Your task to perform on an android device: open app "WhatsApp Messenger" (install if not already installed) Image 0: 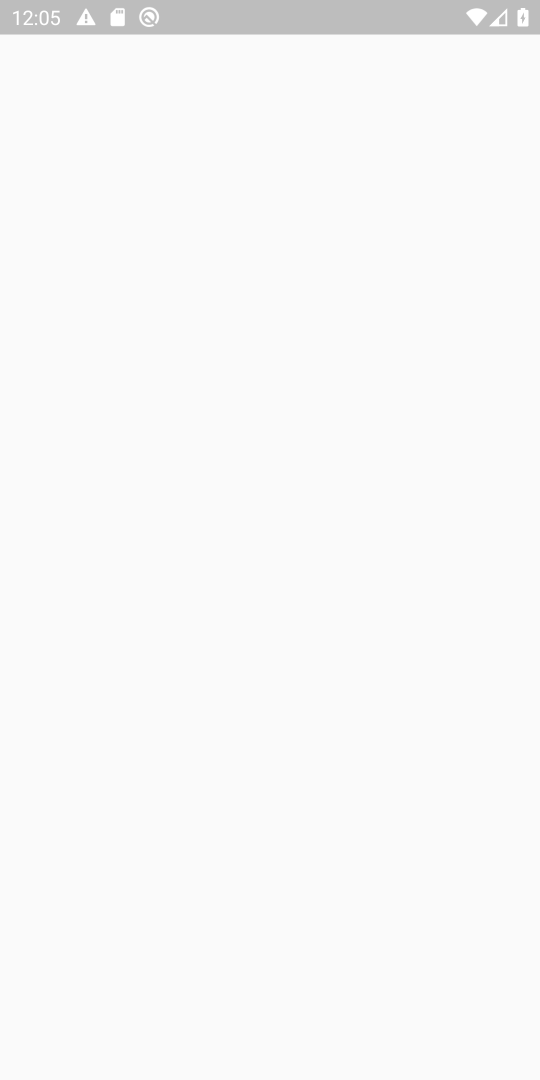
Step 0: press home button
Your task to perform on an android device: open app "WhatsApp Messenger" (install if not already installed) Image 1: 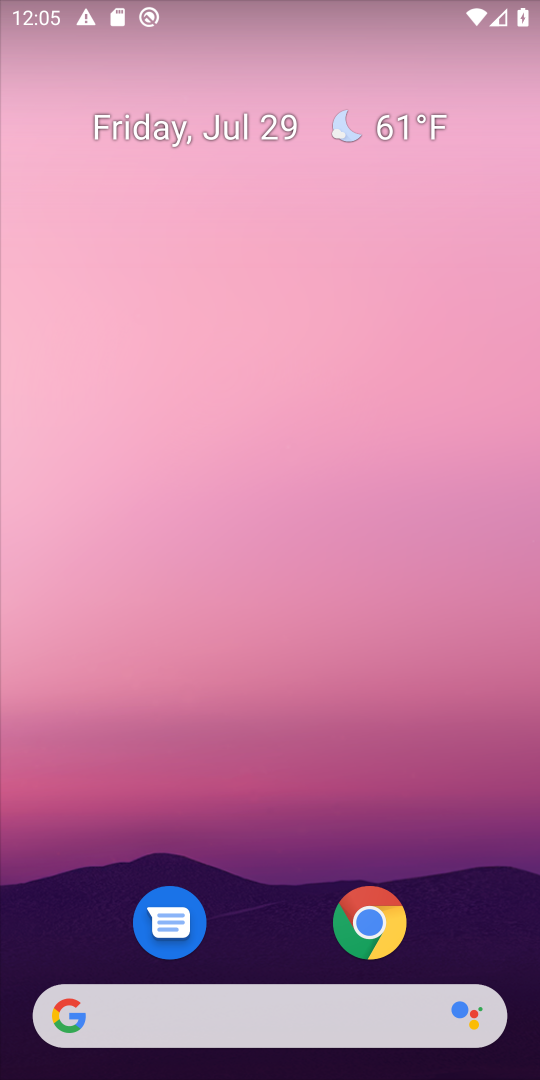
Step 1: drag from (442, 896) to (396, 108)
Your task to perform on an android device: open app "WhatsApp Messenger" (install if not already installed) Image 2: 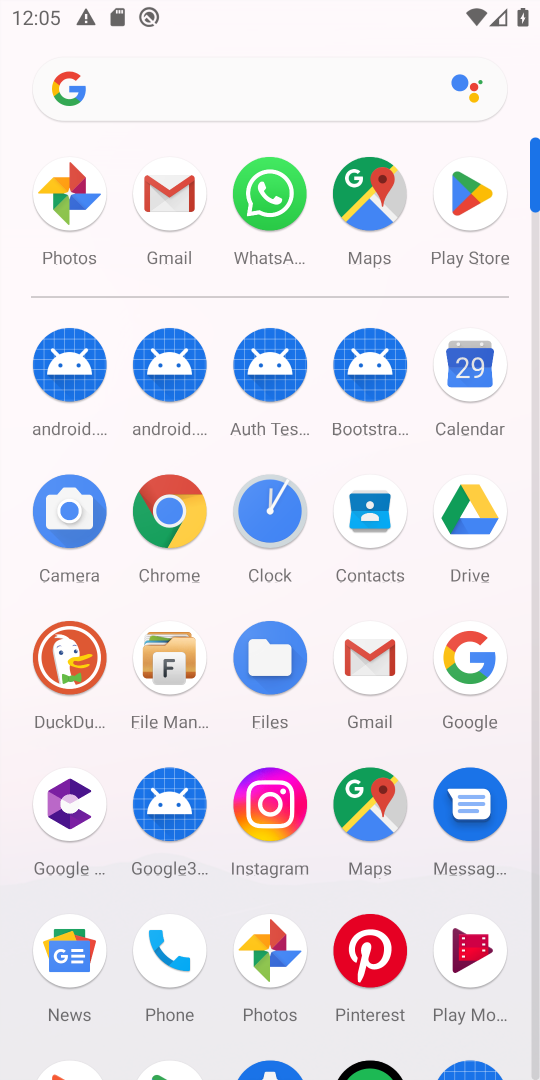
Step 2: click (466, 204)
Your task to perform on an android device: open app "WhatsApp Messenger" (install if not already installed) Image 3: 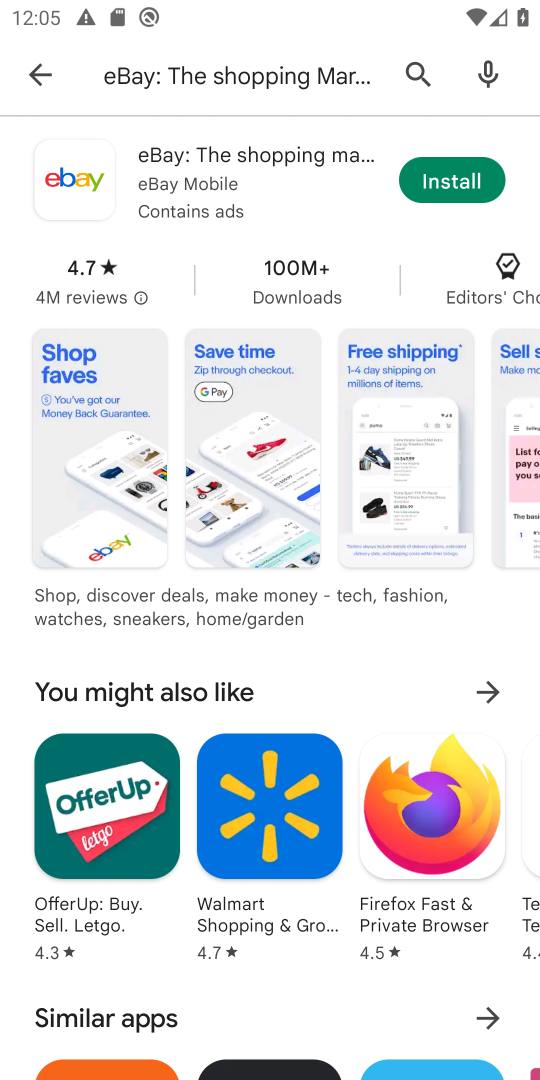
Step 3: click (297, 81)
Your task to perform on an android device: open app "WhatsApp Messenger" (install if not already installed) Image 4: 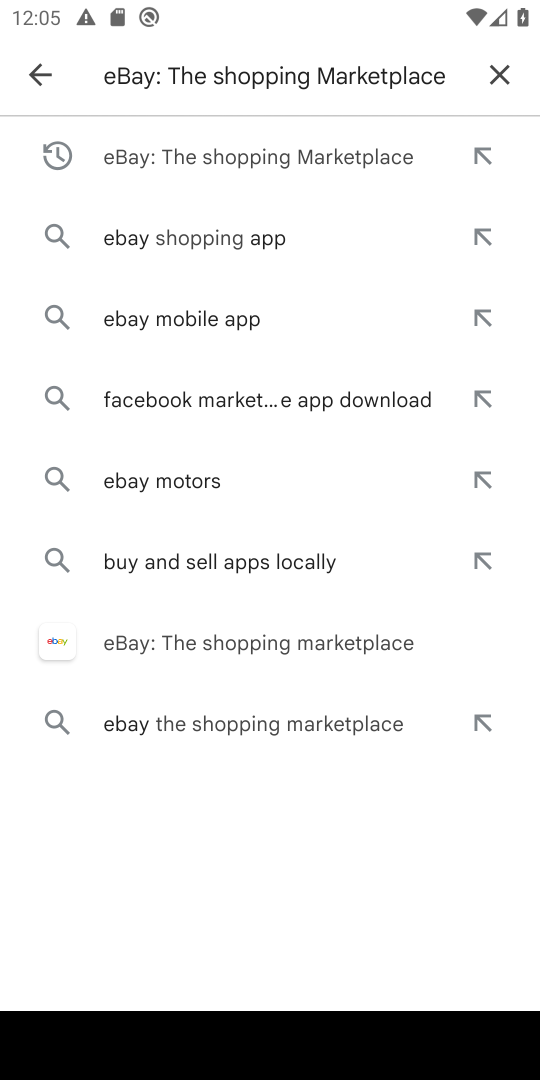
Step 4: click (489, 64)
Your task to perform on an android device: open app "WhatsApp Messenger" (install if not already installed) Image 5: 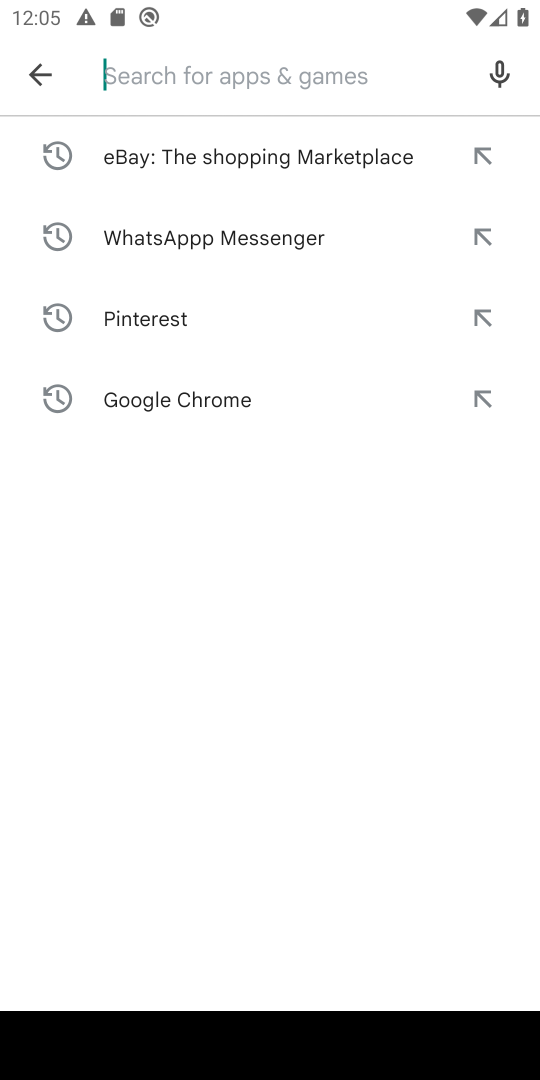
Step 5: type "Whatsapp Messenger"
Your task to perform on an android device: open app "WhatsApp Messenger" (install if not already installed) Image 6: 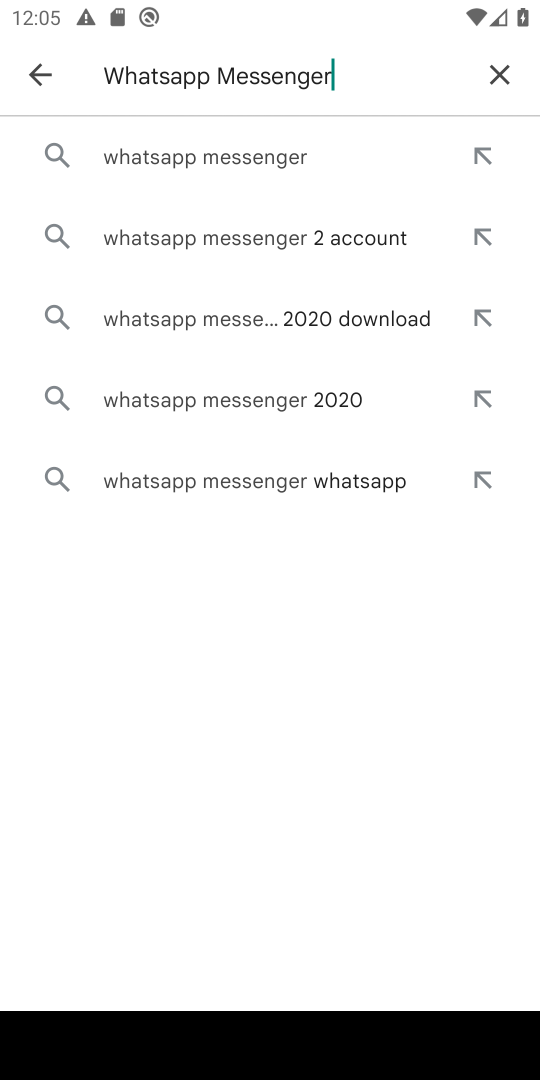
Step 6: press enter
Your task to perform on an android device: open app "WhatsApp Messenger" (install if not already installed) Image 7: 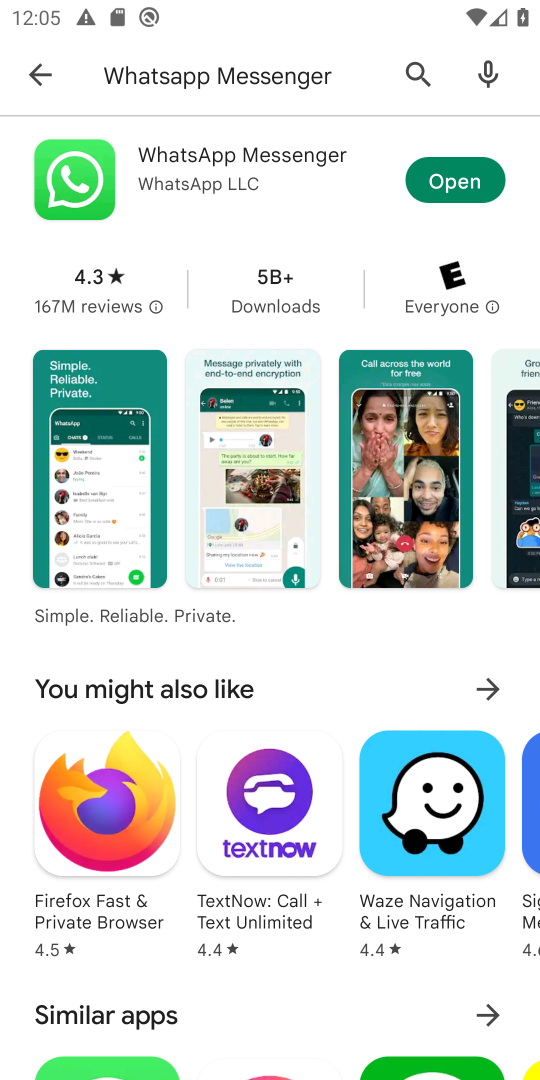
Step 7: click (226, 186)
Your task to perform on an android device: open app "WhatsApp Messenger" (install if not already installed) Image 8: 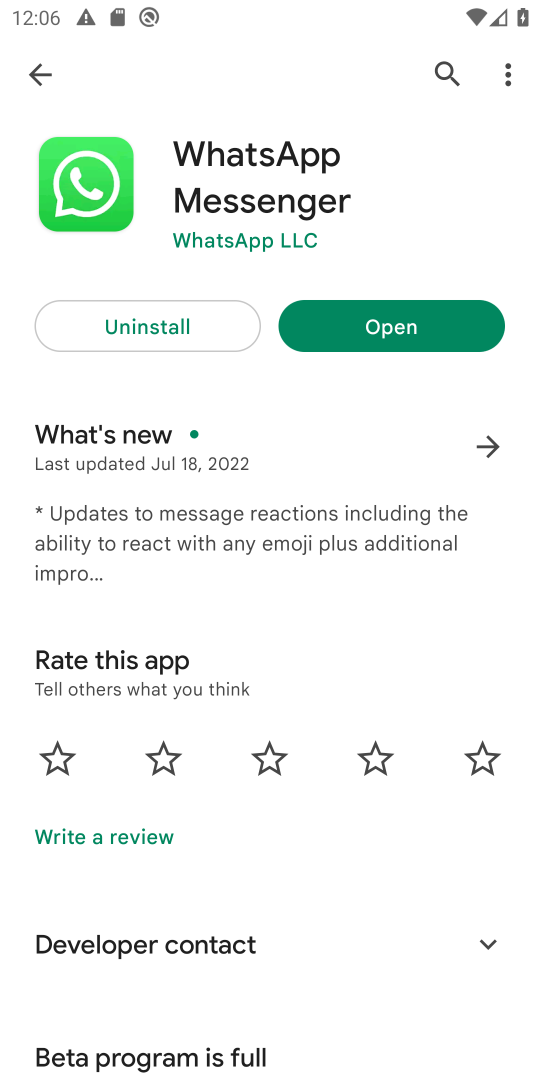
Step 8: click (452, 340)
Your task to perform on an android device: open app "WhatsApp Messenger" (install if not already installed) Image 9: 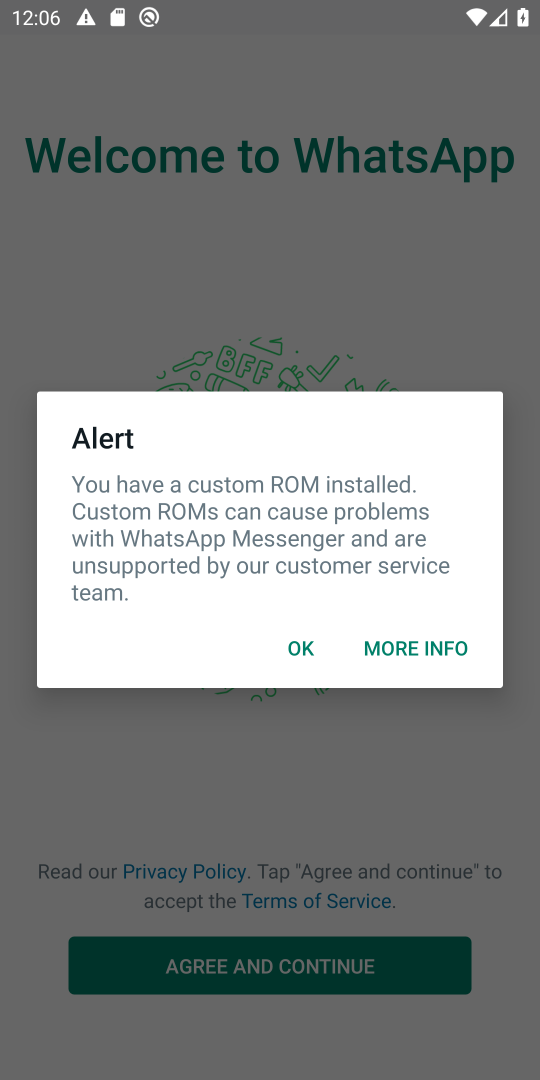
Step 9: task complete